Your task to perform on an android device: star an email in the gmail app Image 0: 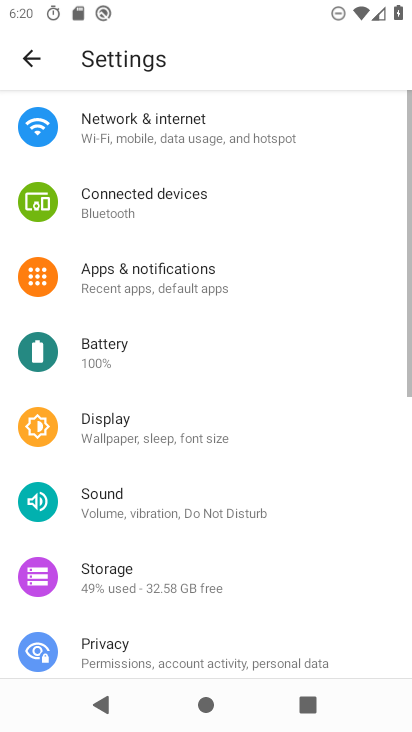
Step 0: press home button
Your task to perform on an android device: star an email in the gmail app Image 1: 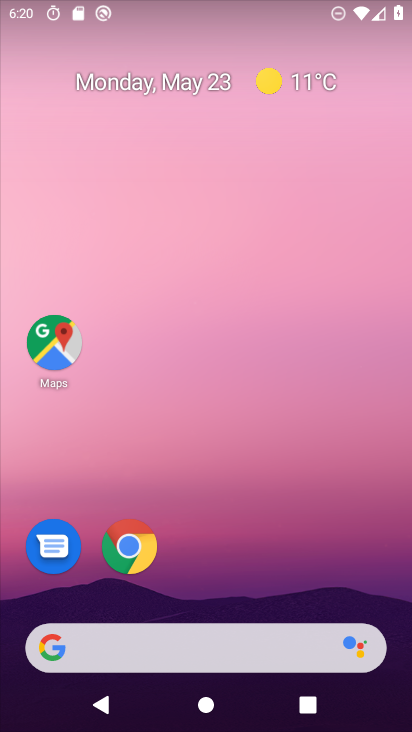
Step 1: drag from (242, 564) to (208, 294)
Your task to perform on an android device: star an email in the gmail app Image 2: 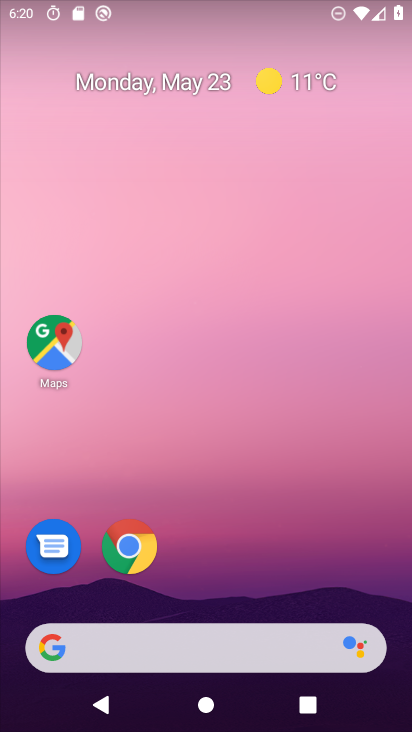
Step 2: drag from (262, 586) to (222, 26)
Your task to perform on an android device: star an email in the gmail app Image 3: 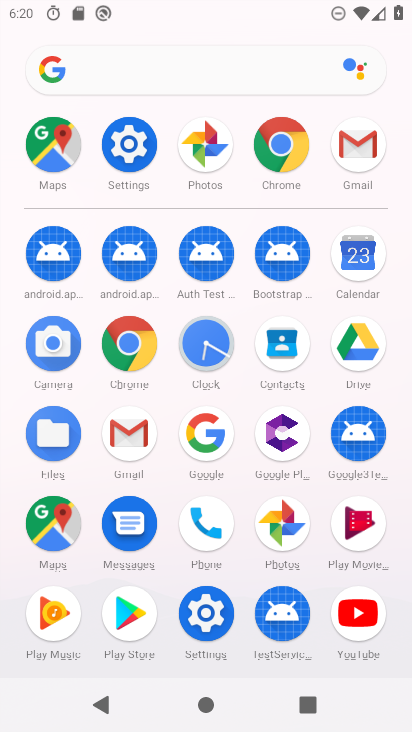
Step 3: click (364, 133)
Your task to perform on an android device: star an email in the gmail app Image 4: 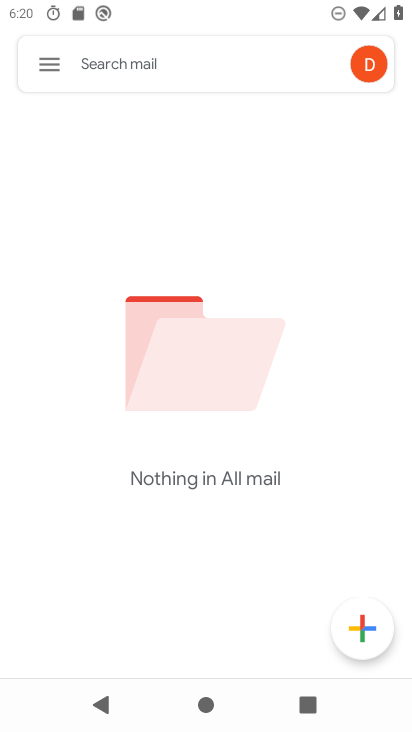
Step 4: task complete